Your task to perform on an android device: turn off location Image 0: 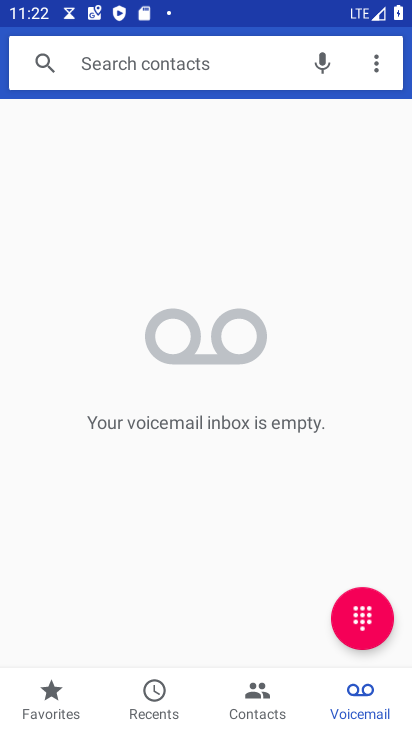
Step 0: press home button
Your task to perform on an android device: turn off location Image 1: 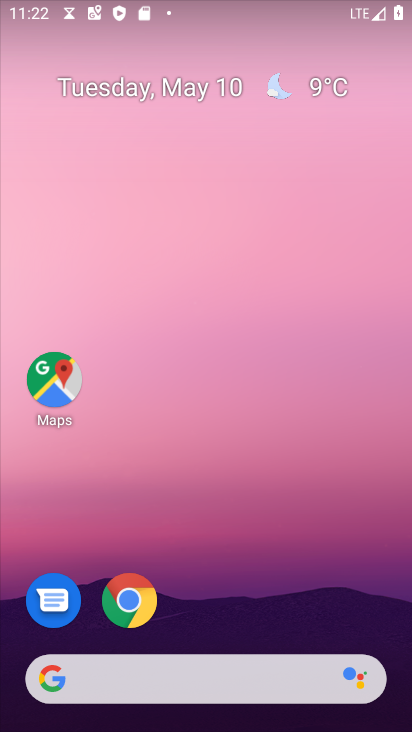
Step 1: drag from (239, 495) to (222, 174)
Your task to perform on an android device: turn off location Image 2: 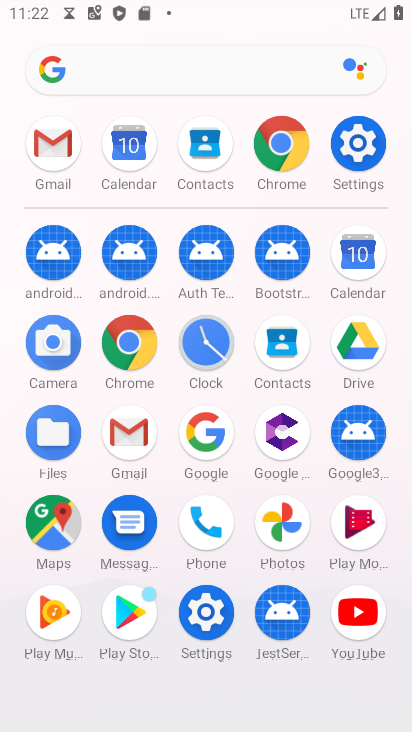
Step 2: click (360, 149)
Your task to perform on an android device: turn off location Image 3: 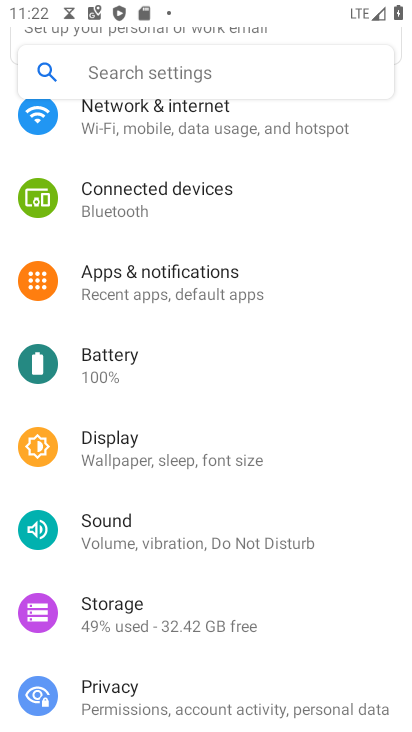
Step 3: drag from (203, 643) to (230, 229)
Your task to perform on an android device: turn off location Image 4: 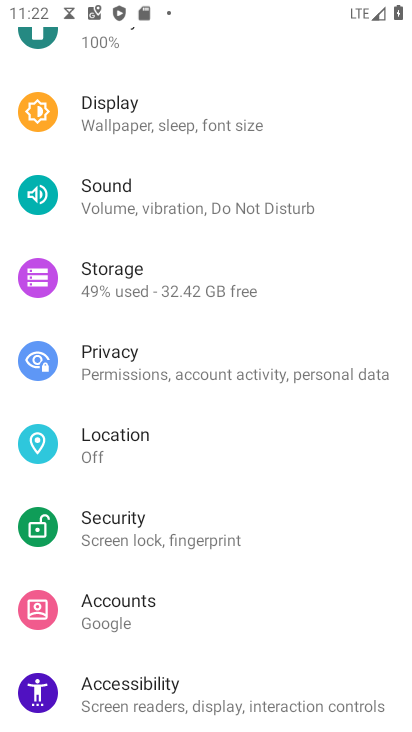
Step 4: click (178, 455)
Your task to perform on an android device: turn off location Image 5: 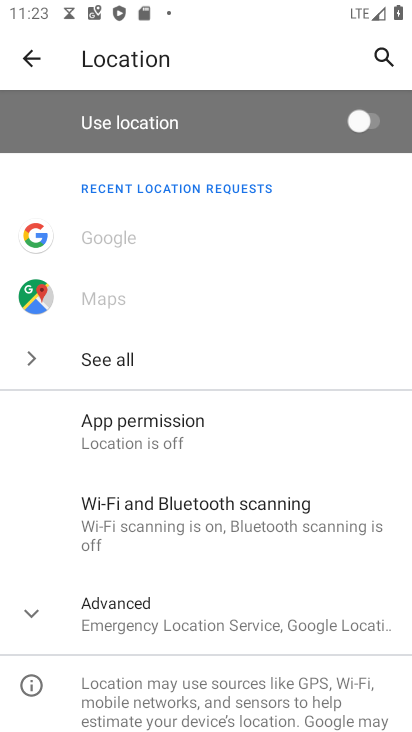
Step 5: task complete